Your task to perform on an android device: View the shopping cart on target.com. Add asus rog to the cart on target.com Image 0: 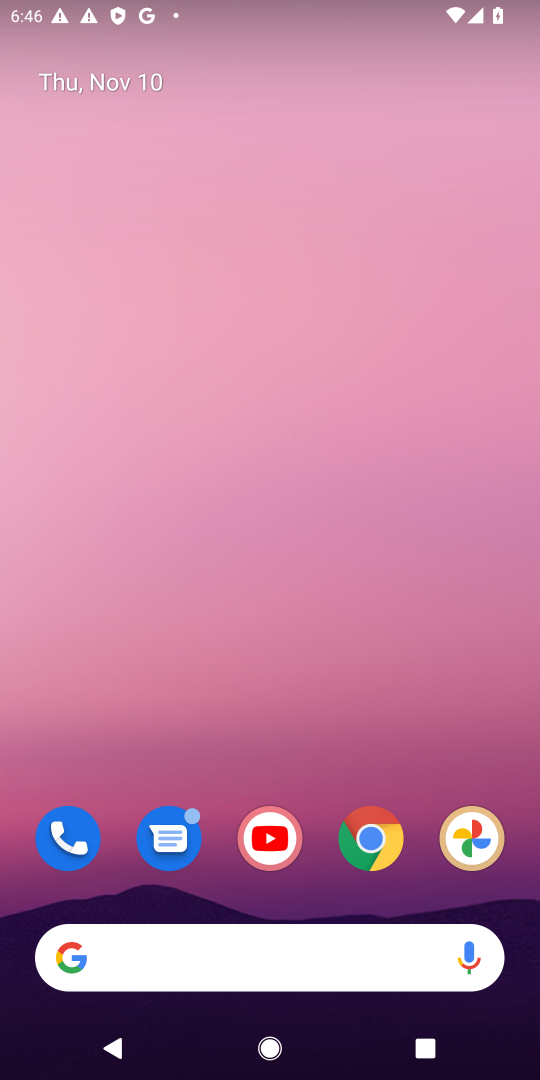
Step 0: drag from (318, 913) to (316, 100)
Your task to perform on an android device: View the shopping cart on target.com. Add asus rog to the cart on target.com Image 1: 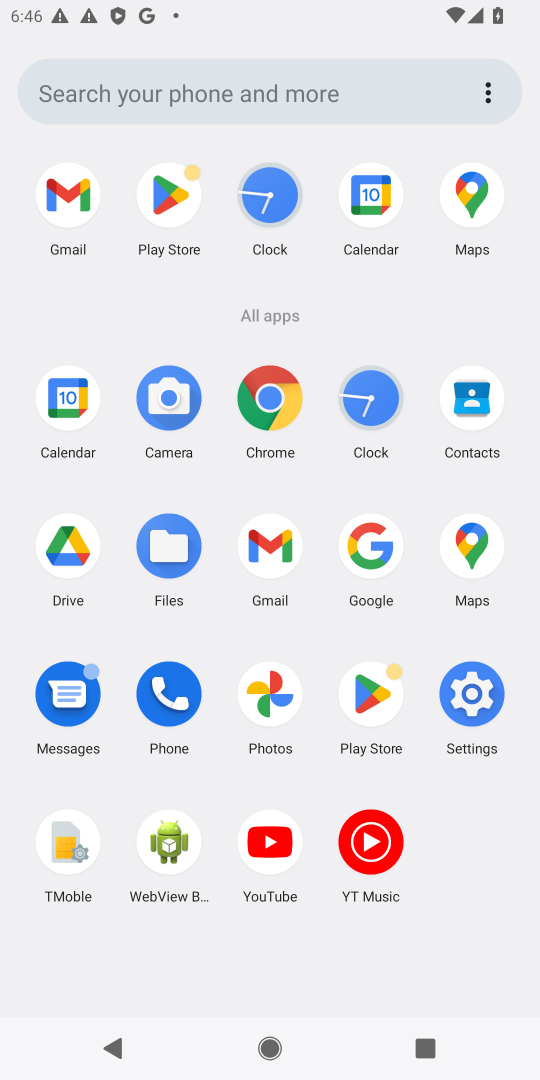
Step 1: click (270, 400)
Your task to perform on an android device: View the shopping cart on target.com. Add asus rog to the cart on target.com Image 2: 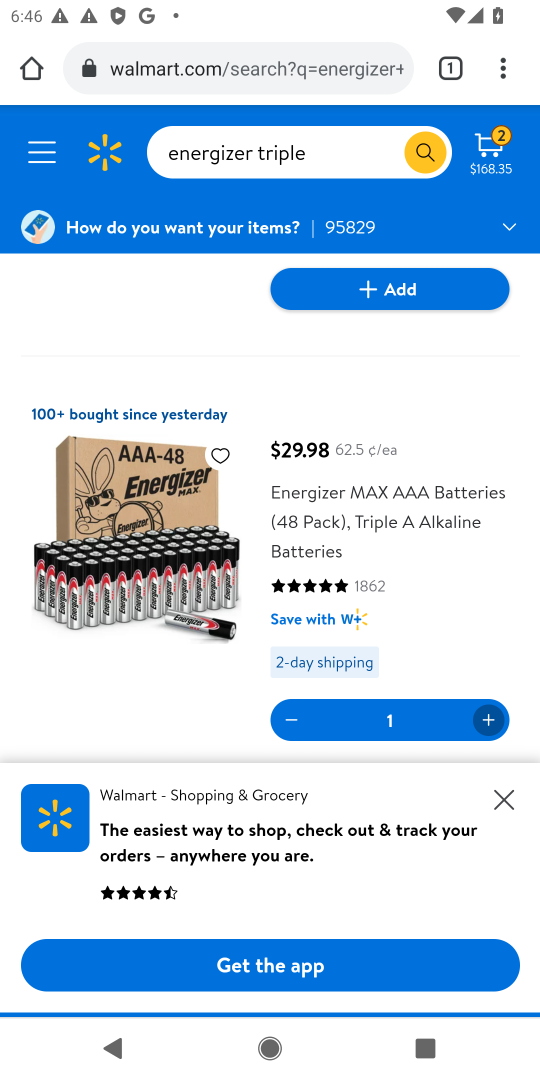
Step 2: click (284, 68)
Your task to perform on an android device: View the shopping cart on target.com. Add asus rog to the cart on target.com Image 3: 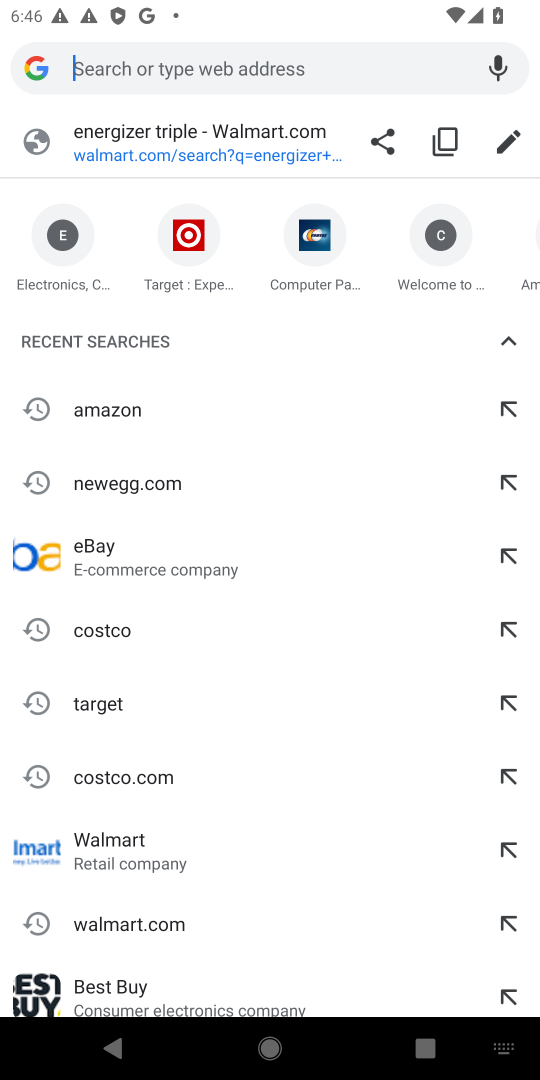
Step 3: type "target.com"
Your task to perform on an android device: View the shopping cart on target.com. Add asus rog to the cart on target.com Image 4: 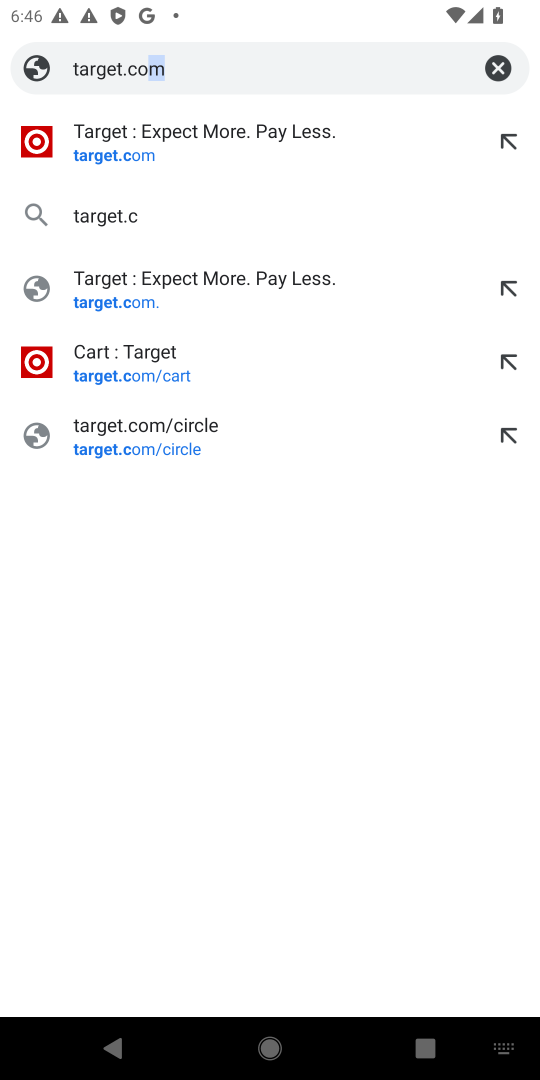
Step 4: press enter
Your task to perform on an android device: View the shopping cart on target.com. Add asus rog to the cart on target.com Image 5: 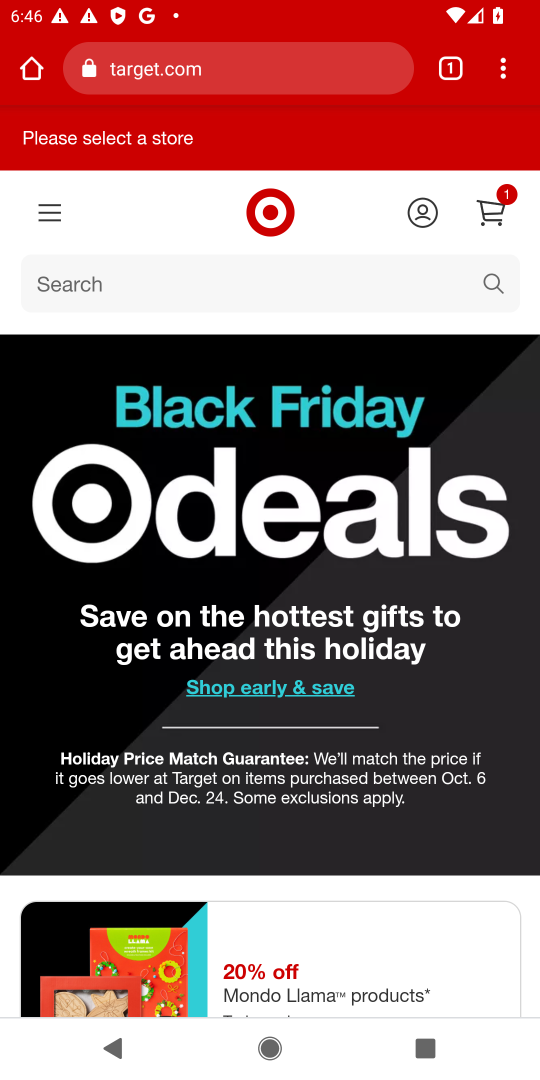
Step 5: click (188, 286)
Your task to perform on an android device: View the shopping cart on target.com. Add asus rog to the cart on target.com Image 6: 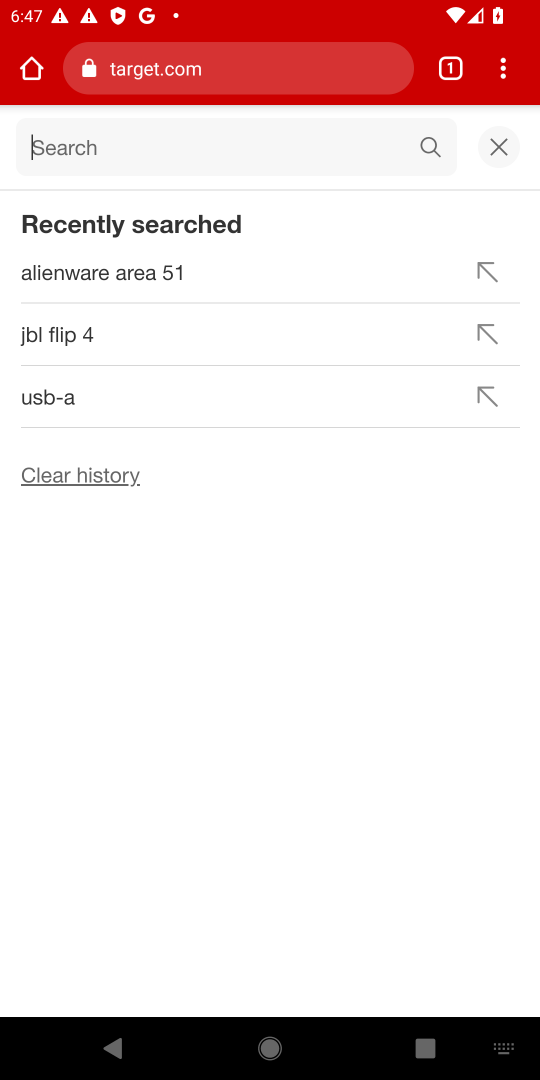
Step 6: type "asus rog"
Your task to perform on an android device: View the shopping cart on target.com. Add asus rog to the cart on target.com Image 7: 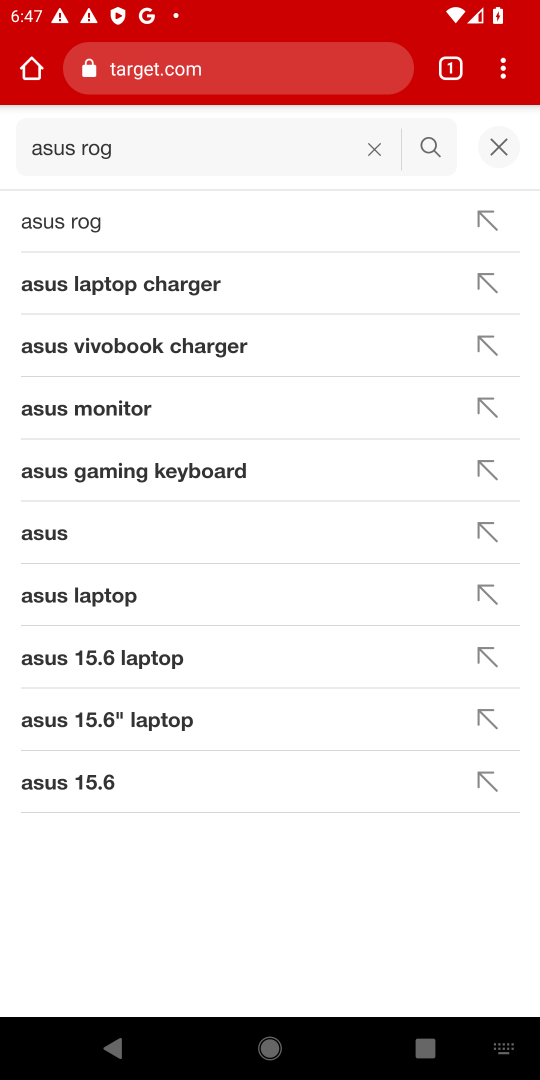
Step 7: press enter
Your task to perform on an android device: View the shopping cart on target.com. Add asus rog to the cart on target.com Image 8: 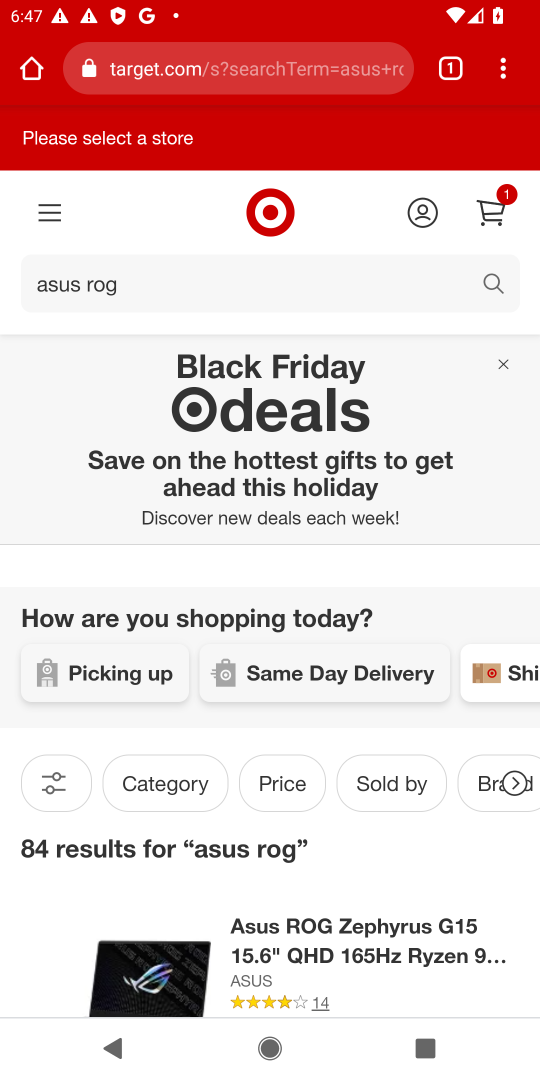
Step 8: drag from (331, 959) to (333, 328)
Your task to perform on an android device: View the shopping cart on target.com. Add asus rog to the cart on target.com Image 9: 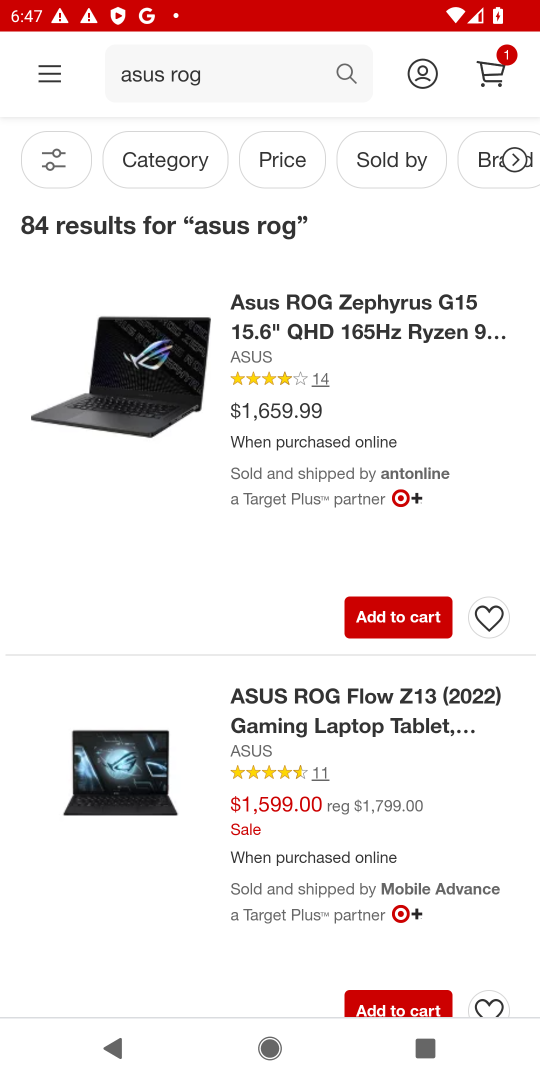
Step 9: click (360, 620)
Your task to perform on an android device: View the shopping cart on target.com. Add asus rog to the cart on target.com Image 10: 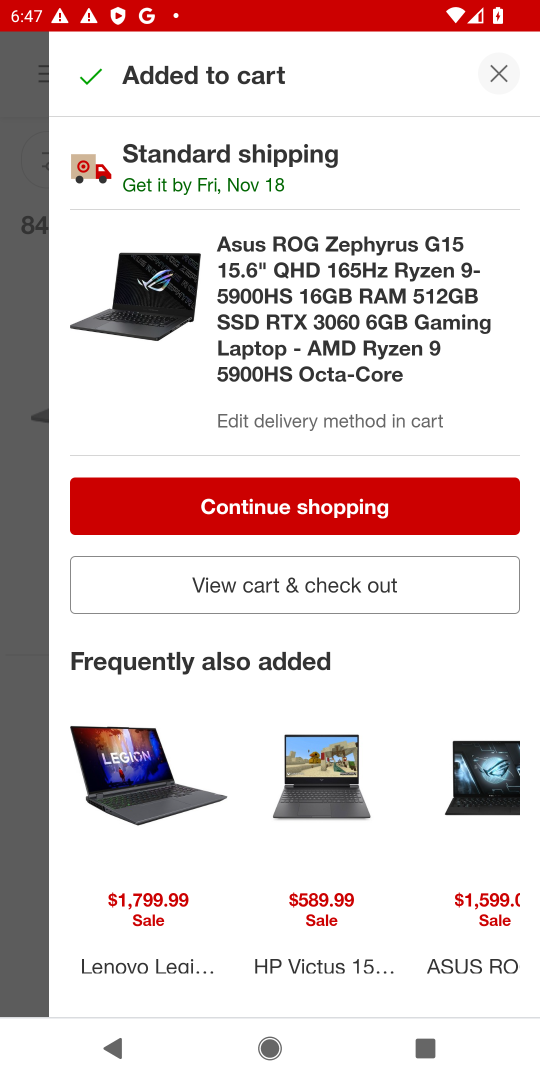
Step 10: task complete